Your task to perform on an android device: show emergency info Image 0: 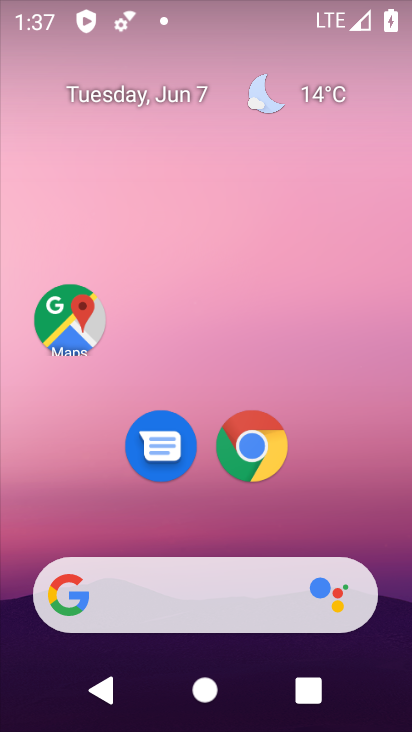
Step 0: drag from (196, 588) to (273, 228)
Your task to perform on an android device: show emergency info Image 1: 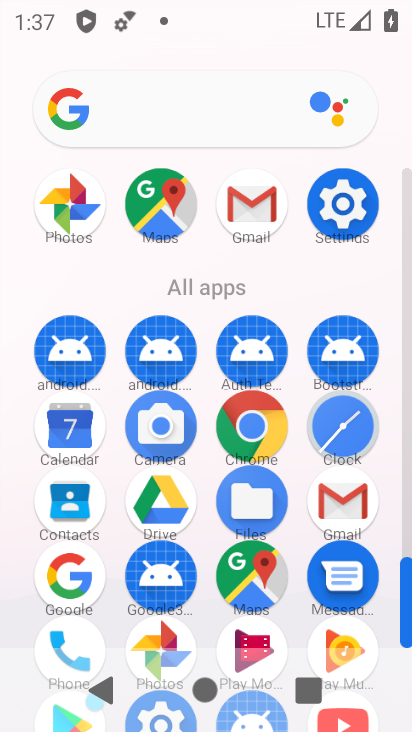
Step 1: click (347, 228)
Your task to perform on an android device: show emergency info Image 2: 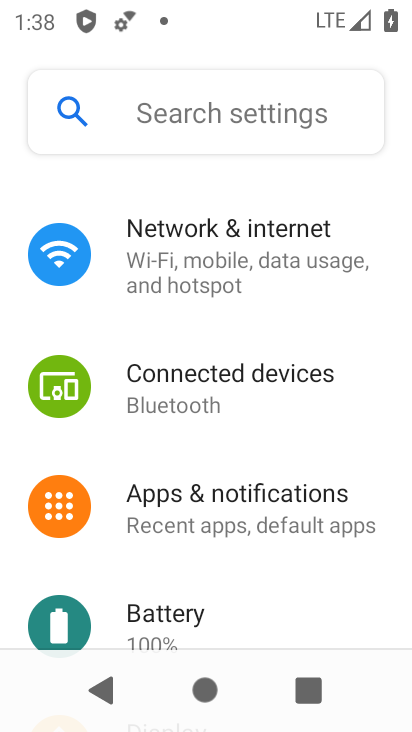
Step 2: drag from (270, 577) to (245, 102)
Your task to perform on an android device: show emergency info Image 3: 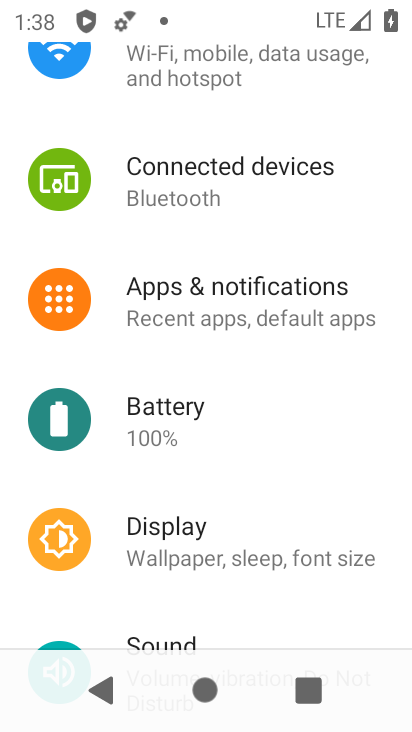
Step 3: drag from (274, 598) to (293, 35)
Your task to perform on an android device: show emergency info Image 4: 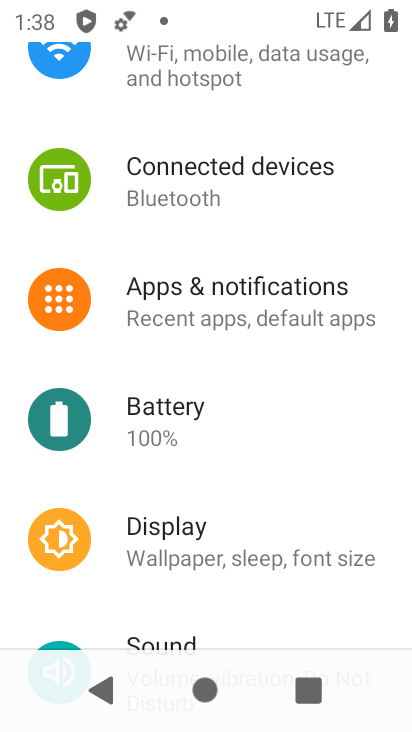
Step 4: click (294, 37)
Your task to perform on an android device: show emergency info Image 5: 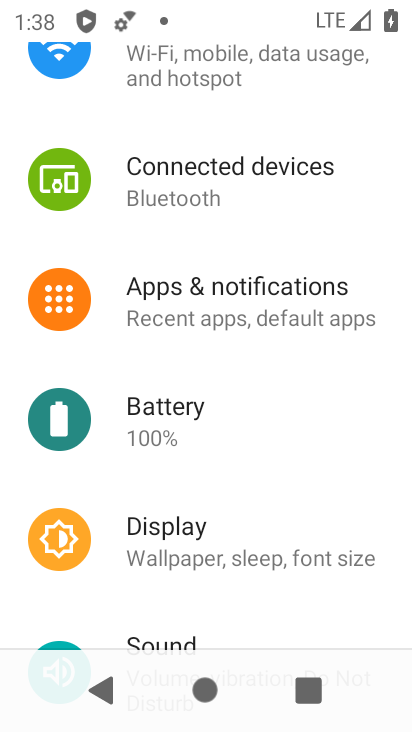
Step 5: drag from (235, 488) to (279, 50)
Your task to perform on an android device: show emergency info Image 6: 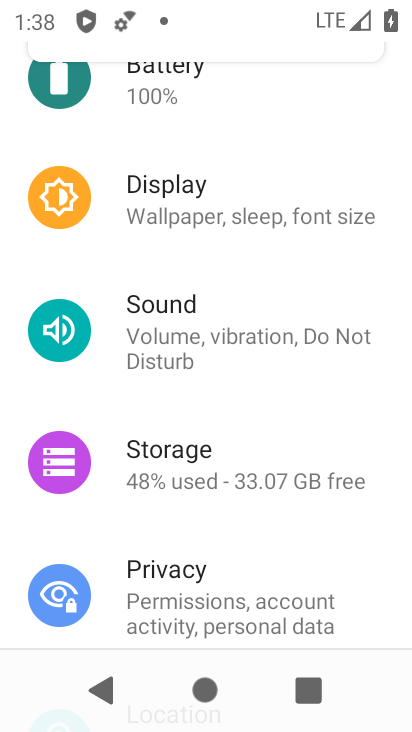
Step 6: drag from (248, 487) to (283, 71)
Your task to perform on an android device: show emergency info Image 7: 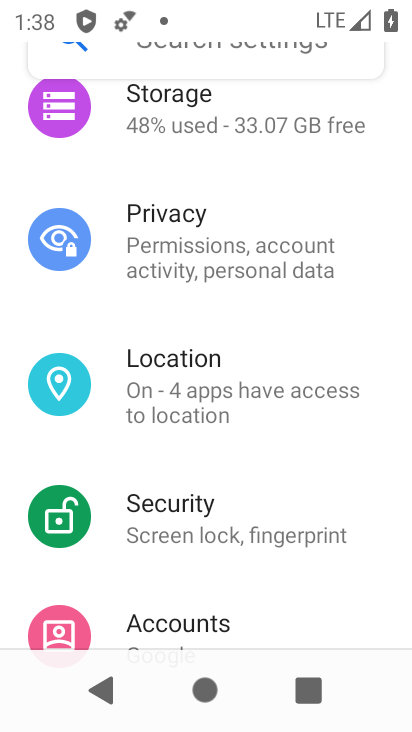
Step 7: drag from (354, 458) to (300, 2)
Your task to perform on an android device: show emergency info Image 8: 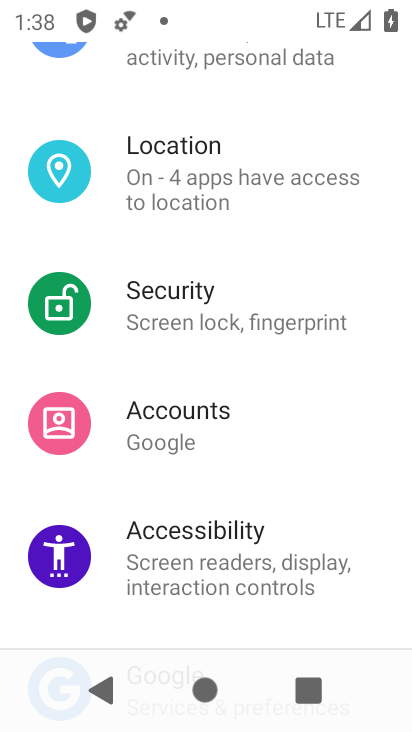
Step 8: drag from (226, 611) to (339, 94)
Your task to perform on an android device: show emergency info Image 9: 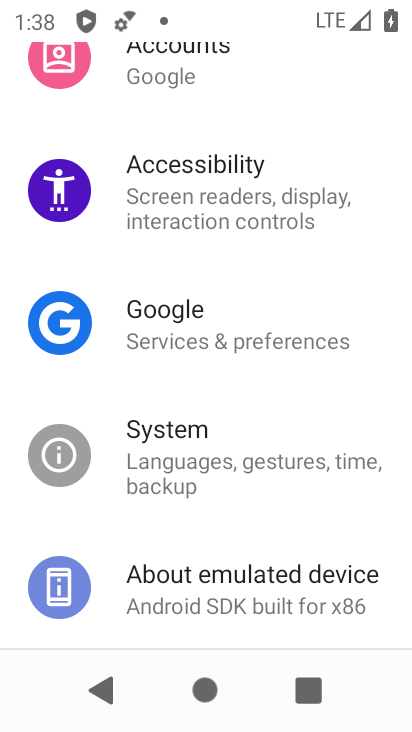
Step 9: click (259, 590)
Your task to perform on an android device: show emergency info Image 10: 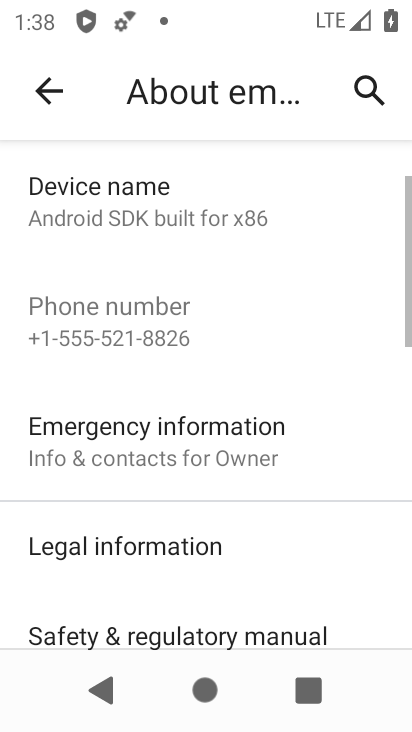
Step 10: click (256, 464)
Your task to perform on an android device: show emergency info Image 11: 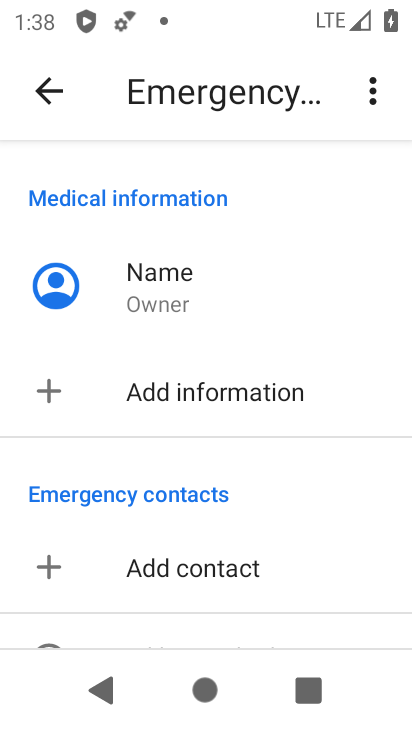
Step 11: task complete